Your task to perform on an android device: turn off notifications settings in the gmail app Image 0: 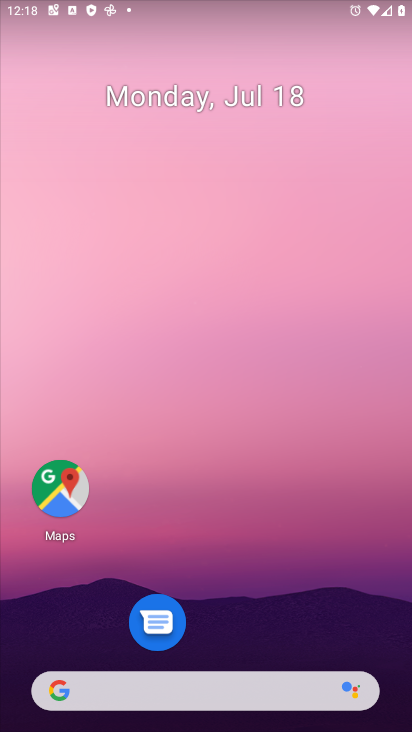
Step 0: drag from (222, 730) to (138, 2)
Your task to perform on an android device: turn off notifications settings in the gmail app Image 1: 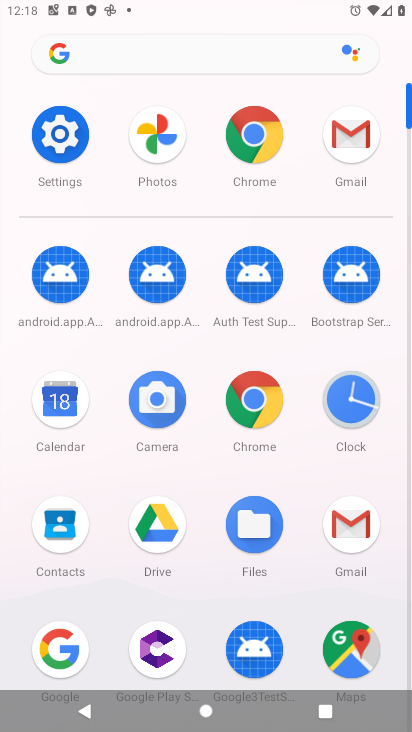
Step 1: click (349, 137)
Your task to perform on an android device: turn off notifications settings in the gmail app Image 2: 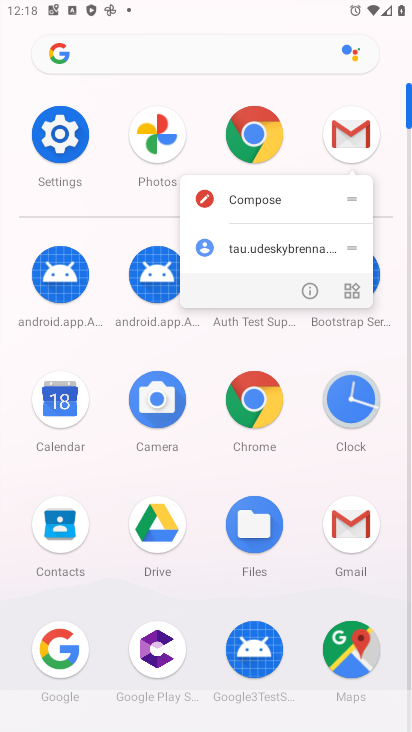
Step 2: click (315, 289)
Your task to perform on an android device: turn off notifications settings in the gmail app Image 3: 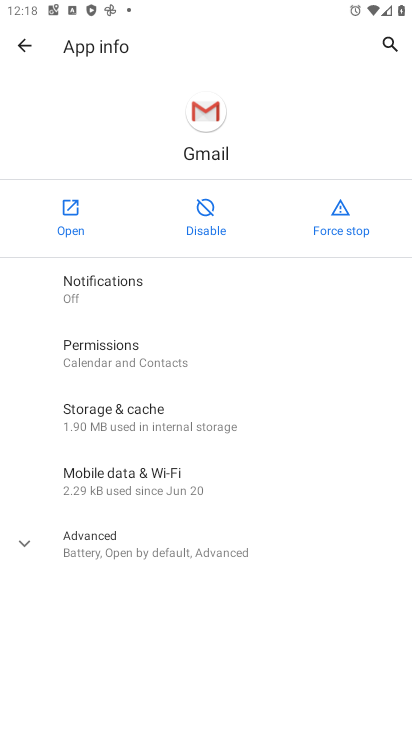
Step 3: click (191, 292)
Your task to perform on an android device: turn off notifications settings in the gmail app Image 4: 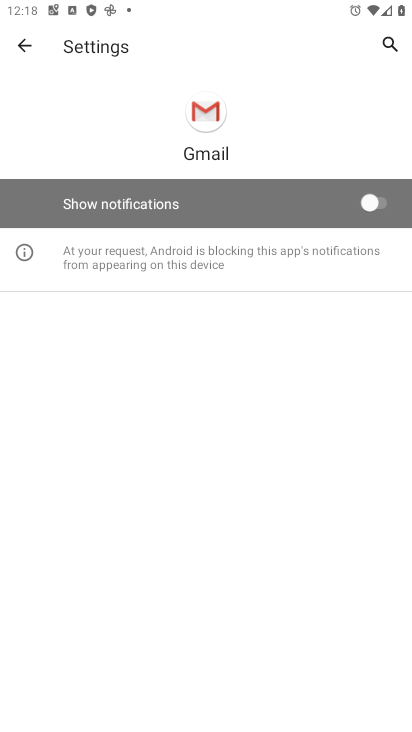
Step 4: task complete